Your task to perform on an android device: Open Reddit.com Image 0: 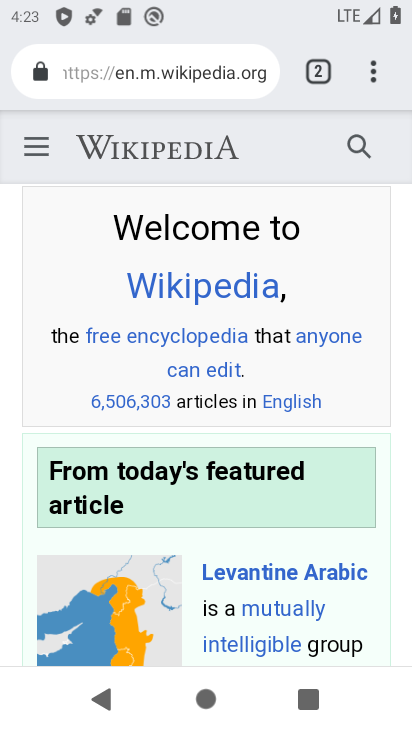
Step 0: press home button
Your task to perform on an android device: Open Reddit.com Image 1: 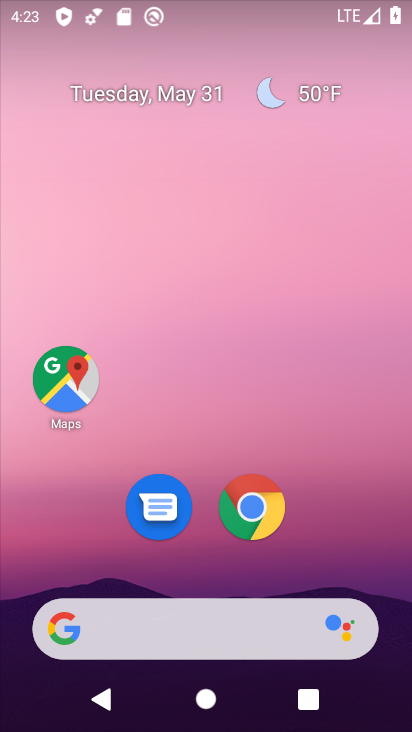
Step 1: click (251, 623)
Your task to perform on an android device: Open Reddit.com Image 2: 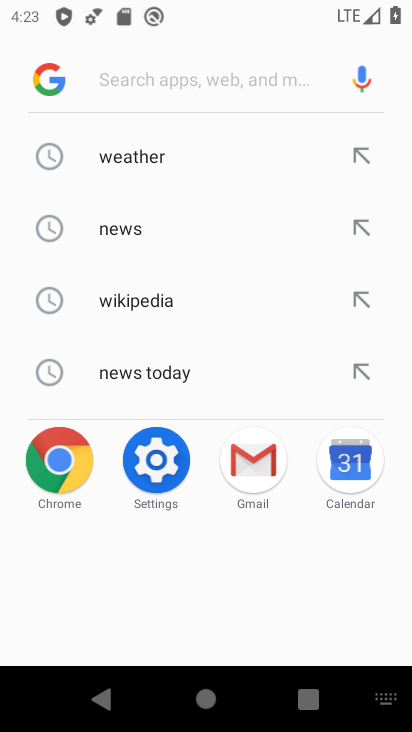
Step 2: type "reddit.com"
Your task to perform on an android device: Open Reddit.com Image 3: 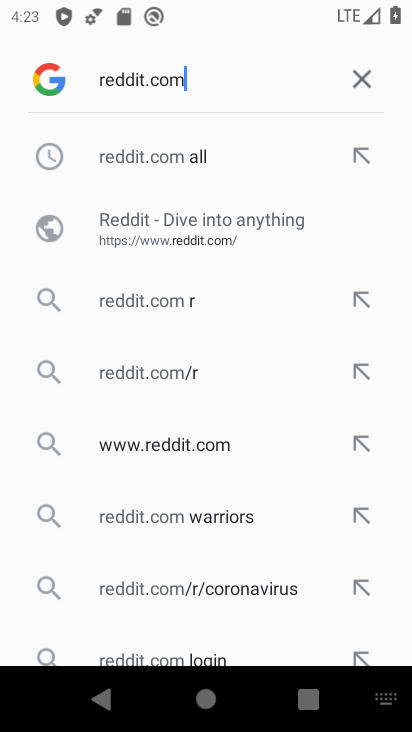
Step 3: click (183, 153)
Your task to perform on an android device: Open Reddit.com Image 4: 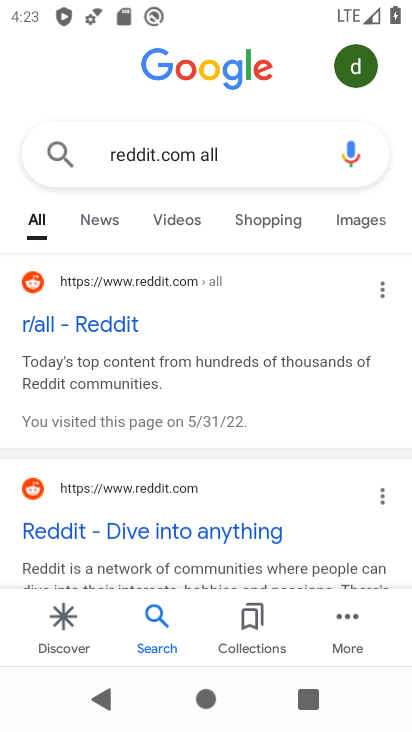
Step 4: click (230, 150)
Your task to perform on an android device: Open Reddit.com Image 5: 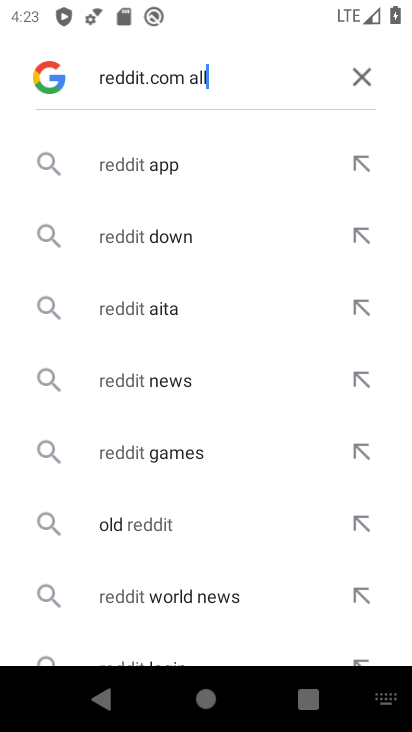
Step 5: drag from (181, 432) to (216, 141)
Your task to perform on an android device: Open Reddit.com Image 6: 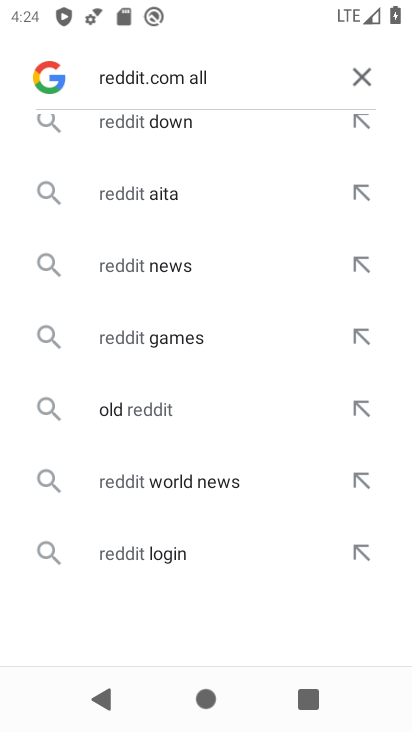
Step 6: click (132, 474)
Your task to perform on an android device: Open Reddit.com Image 7: 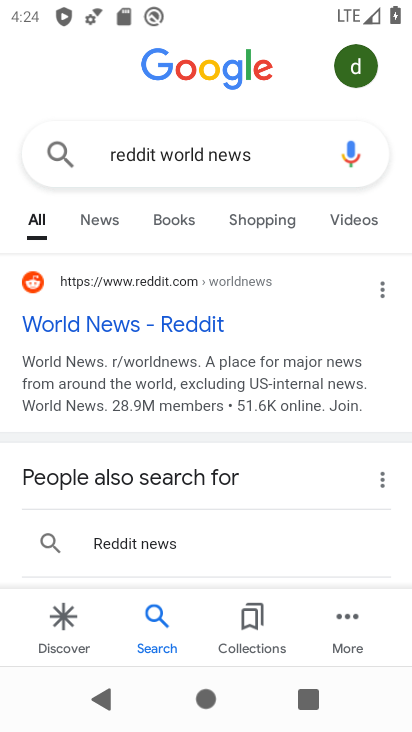
Step 7: click (122, 316)
Your task to perform on an android device: Open Reddit.com Image 8: 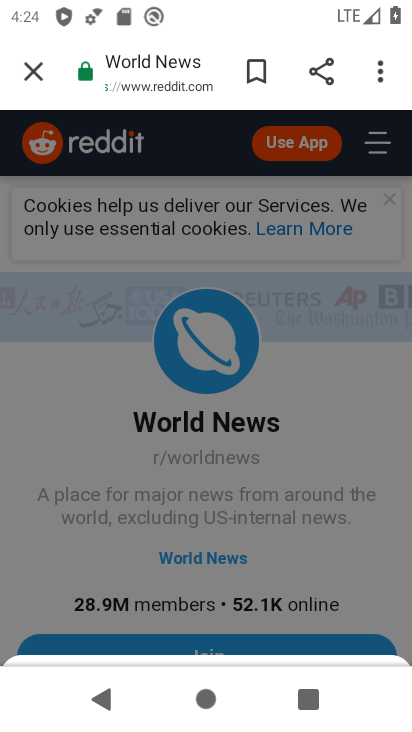
Step 8: task complete